Your task to perform on an android device: check out phone information Image 0: 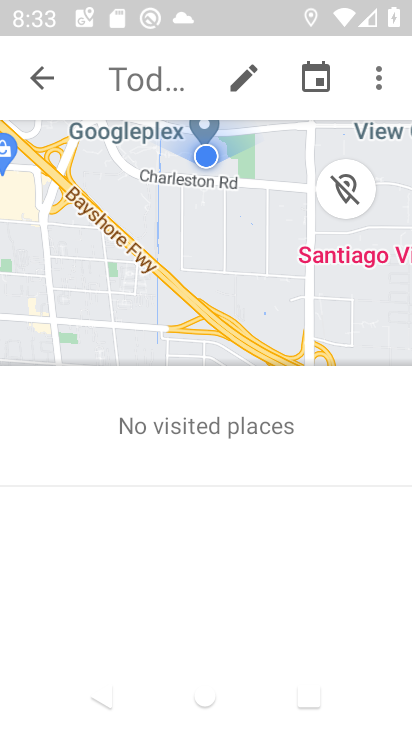
Step 0: press back button
Your task to perform on an android device: check out phone information Image 1: 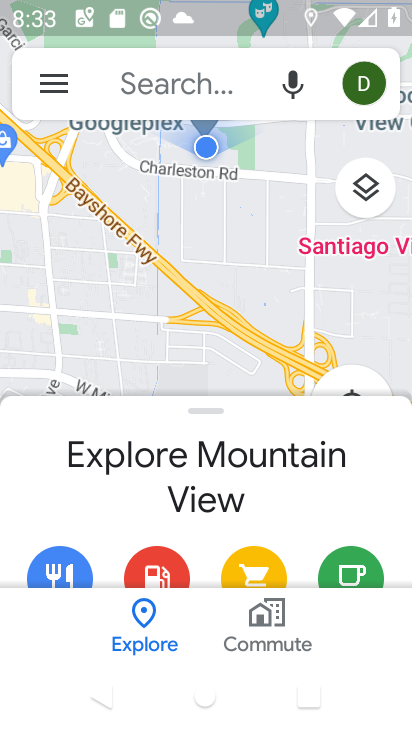
Step 1: press back button
Your task to perform on an android device: check out phone information Image 2: 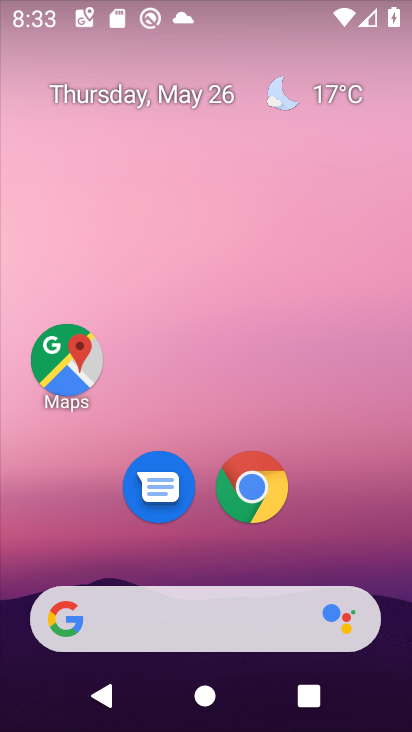
Step 2: drag from (178, 563) to (285, 38)
Your task to perform on an android device: check out phone information Image 3: 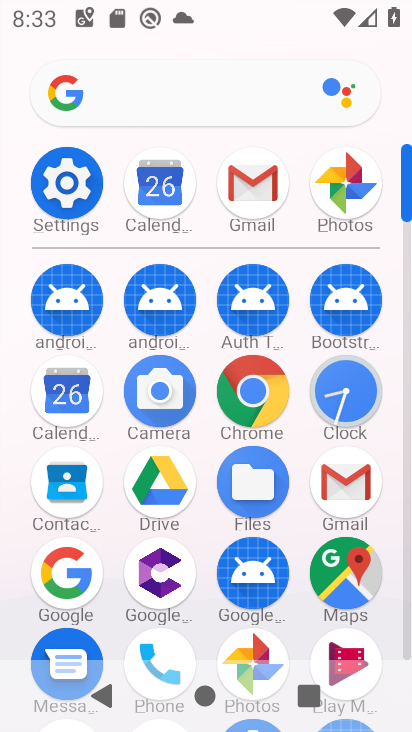
Step 3: click (68, 167)
Your task to perform on an android device: check out phone information Image 4: 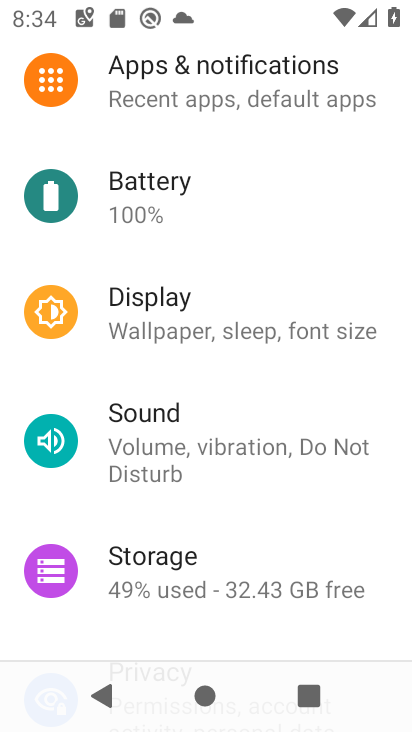
Step 4: drag from (180, 576) to (256, 37)
Your task to perform on an android device: check out phone information Image 5: 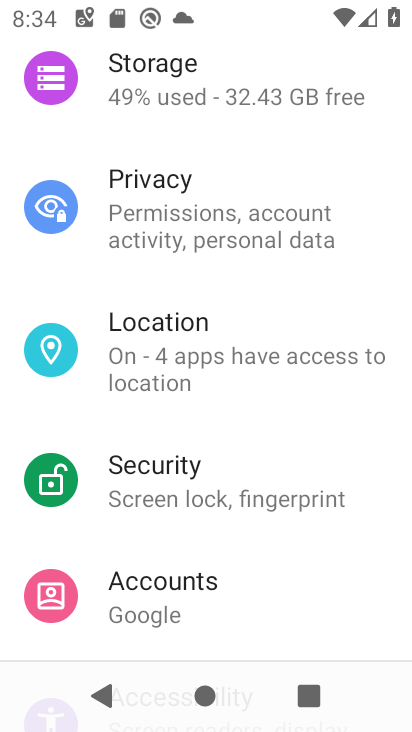
Step 5: drag from (241, 542) to (319, 8)
Your task to perform on an android device: check out phone information Image 6: 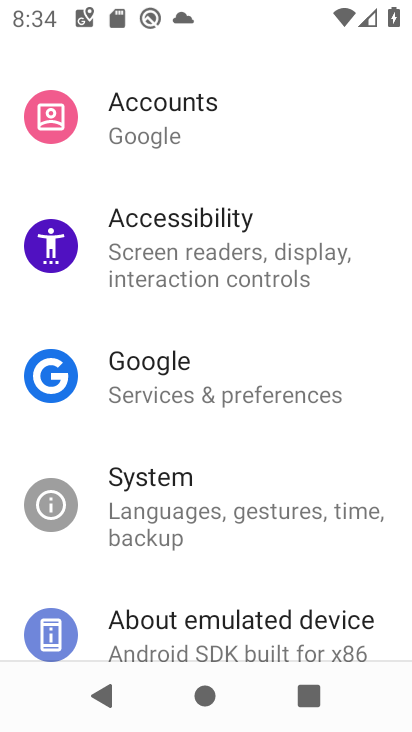
Step 6: drag from (221, 613) to (300, 26)
Your task to perform on an android device: check out phone information Image 7: 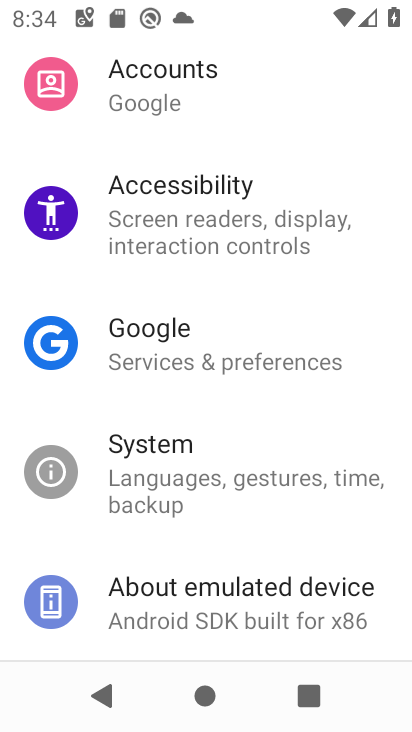
Step 7: click (187, 620)
Your task to perform on an android device: check out phone information Image 8: 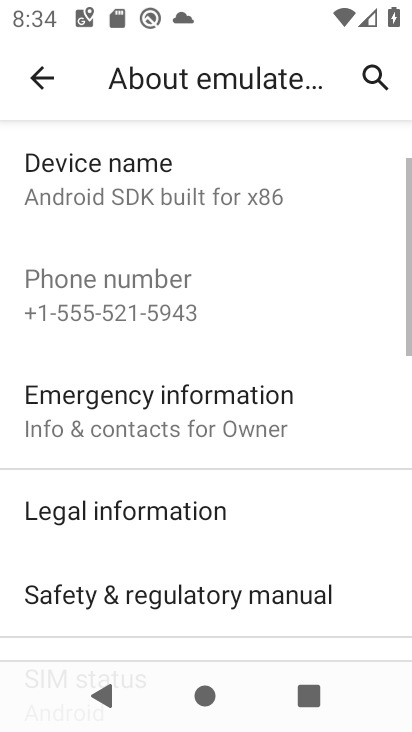
Step 8: task complete